Your task to perform on an android device: empty trash in the gmail app Image 0: 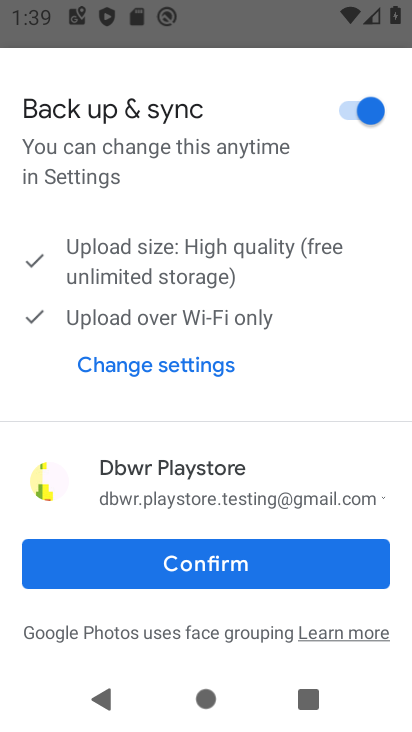
Step 0: press home button
Your task to perform on an android device: empty trash in the gmail app Image 1: 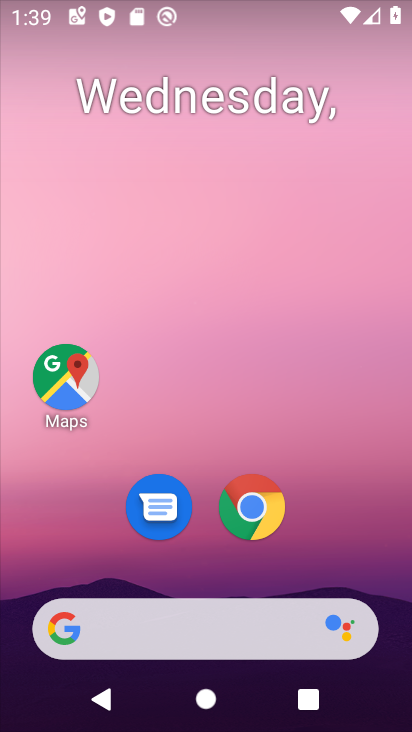
Step 1: drag from (341, 500) to (332, 125)
Your task to perform on an android device: empty trash in the gmail app Image 2: 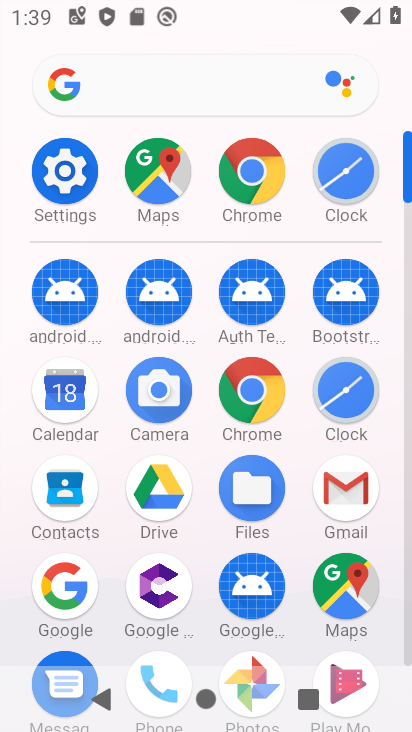
Step 2: click (355, 500)
Your task to perform on an android device: empty trash in the gmail app Image 3: 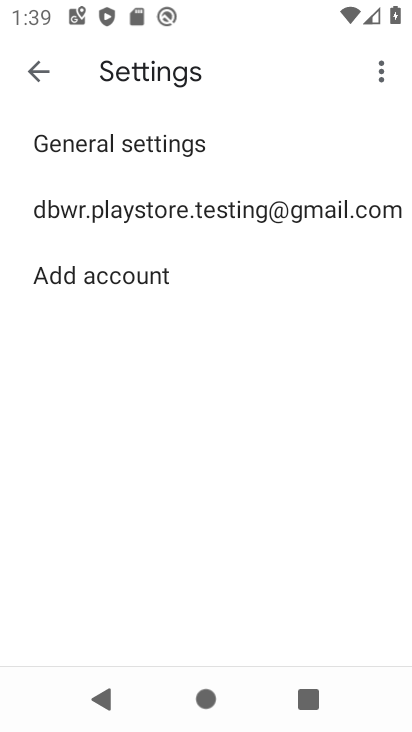
Step 3: click (199, 203)
Your task to perform on an android device: empty trash in the gmail app Image 4: 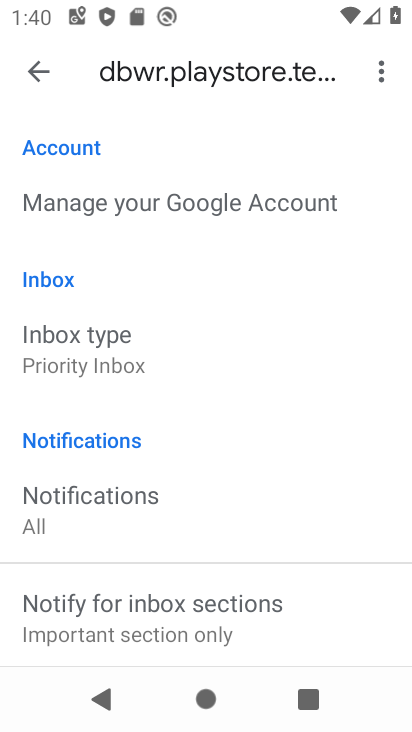
Step 4: drag from (335, 602) to (335, 398)
Your task to perform on an android device: empty trash in the gmail app Image 5: 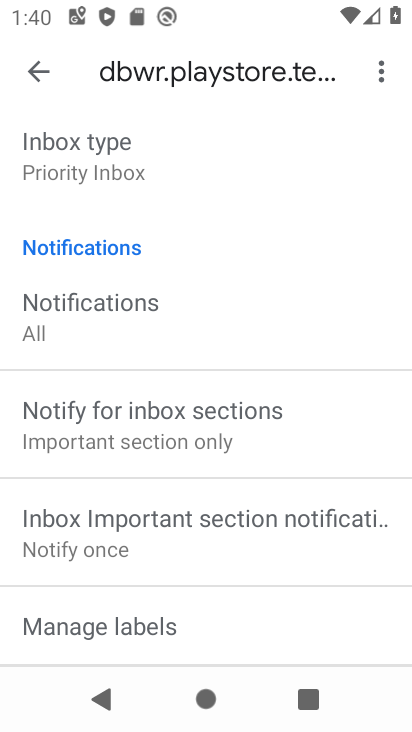
Step 5: drag from (230, 577) to (298, 302)
Your task to perform on an android device: empty trash in the gmail app Image 6: 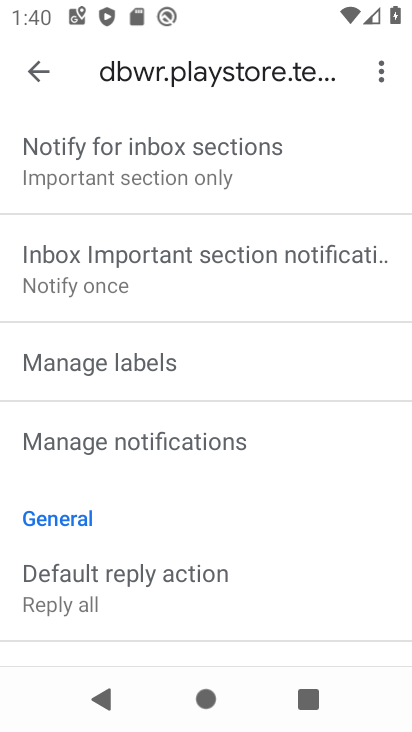
Step 6: drag from (247, 535) to (294, 197)
Your task to perform on an android device: empty trash in the gmail app Image 7: 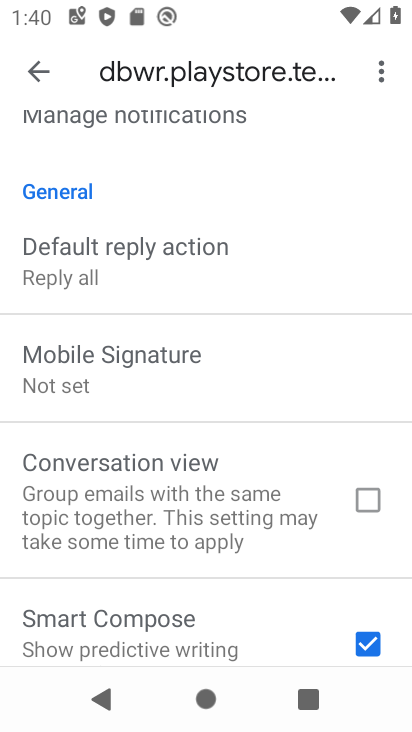
Step 7: click (26, 77)
Your task to perform on an android device: empty trash in the gmail app Image 8: 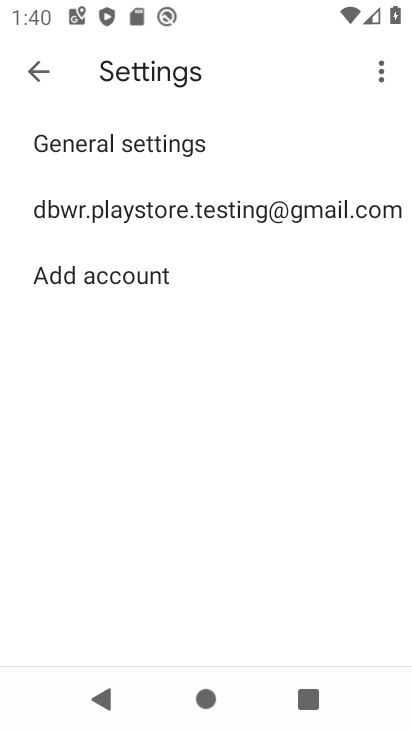
Step 8: click (26, 77)
Your task to perform on an android device: empty trash in the gmail app Image 9: 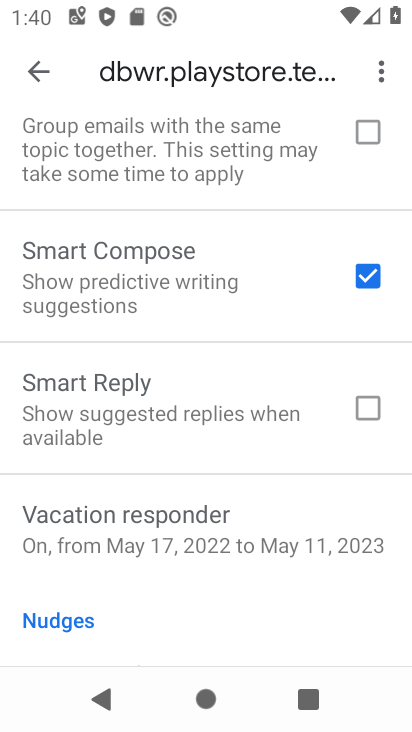
Step 9: click (32, 86)
Your task to perform on an android device: empty trash in the gmail app Image 10: 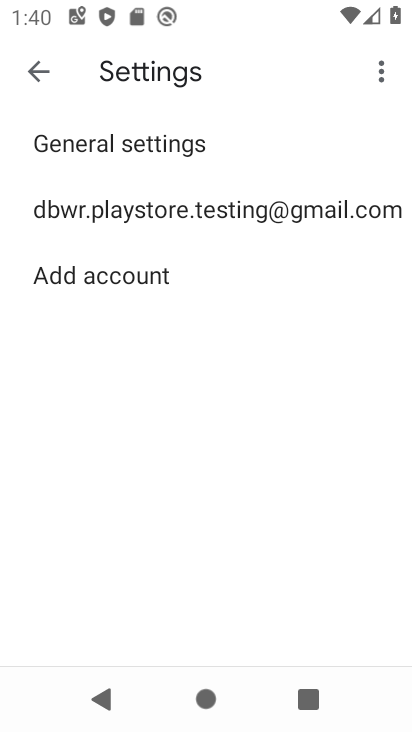
Step 10: click (32, 86)
Your task to perform on an android device: empty trash in the gmail app Image 11: 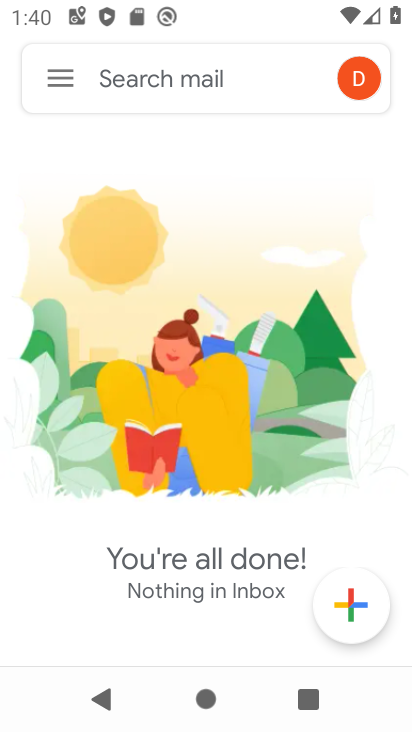
Step 11: click (63, 67)
Your task to perform on an android device: empty trash in the gmail app Image 12: 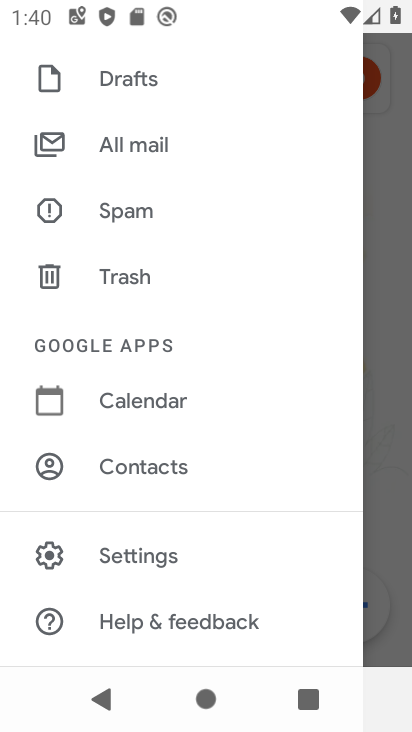
Step 12: click (79, 281)
Your task to perform on an android device: empty trash in the gmail app Image 13: 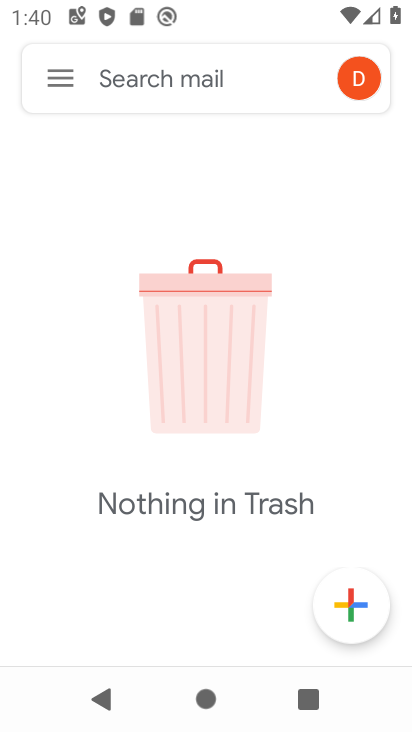
Step 13: task complete